Your task to perform on an android device: toggle notifications settings in the gmail app Image 0: 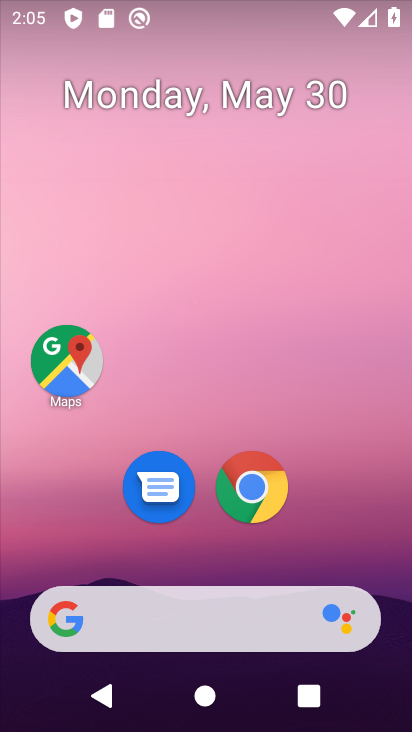
Step 0: drag from (195, 537) to (228, 47)
Your task to perform on an android device: toggle notifications settings in the gmail app Image 1: 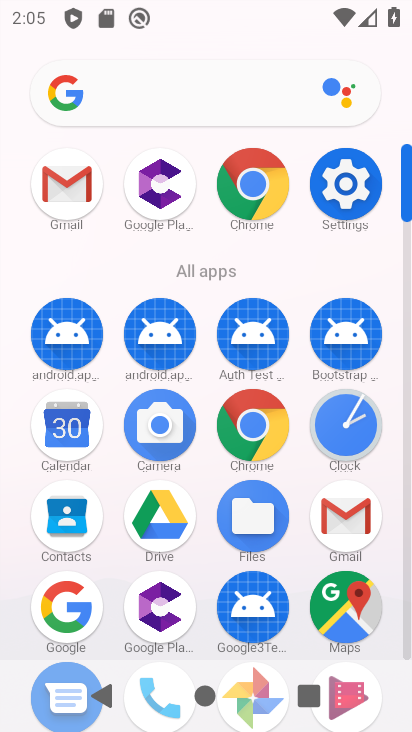
Step 1: click (78, 194)
Your task to perform on an android device: toggle notifications settings in the gmail app Image 2: 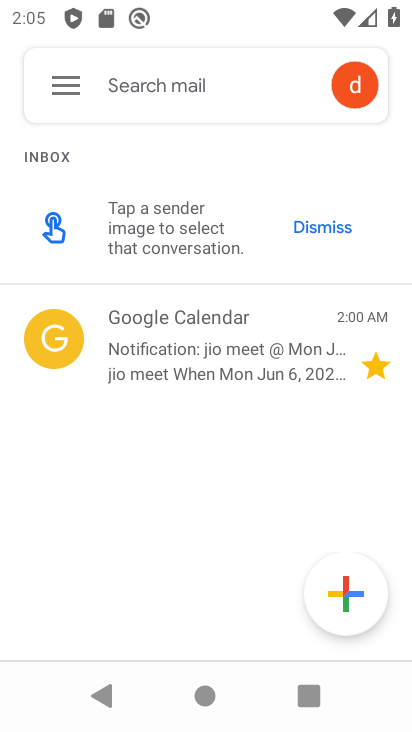
Step 2: click (73, 84)
Your task to perform on an android device: toggle notifications settings in the gmail app Image 3: 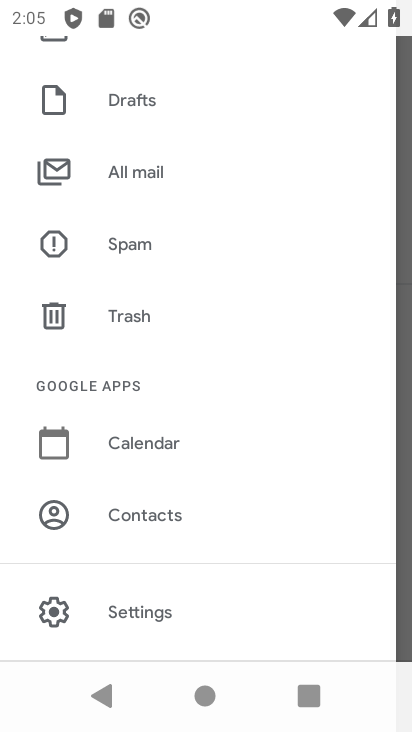
Step 3: drag from (199, 347) to (191, 467)
Your task to perform on an android device: toggle notifications settings in the gmail app Image 4: 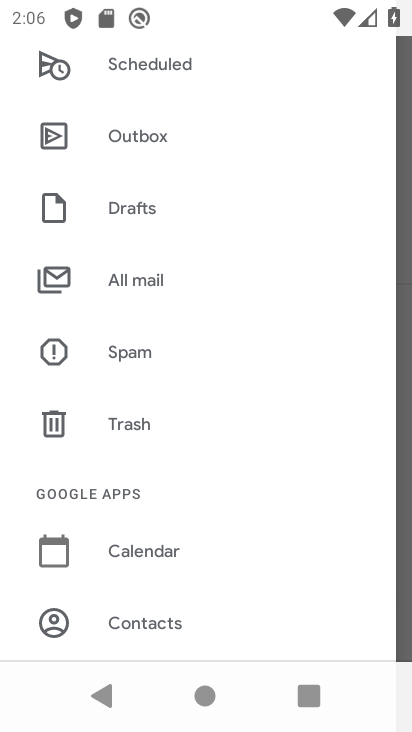
Step 4: drag from (168, 562) to (189, 267)
Your task to perform on an android device: toggle notifications settings in the gmail app Image 5: 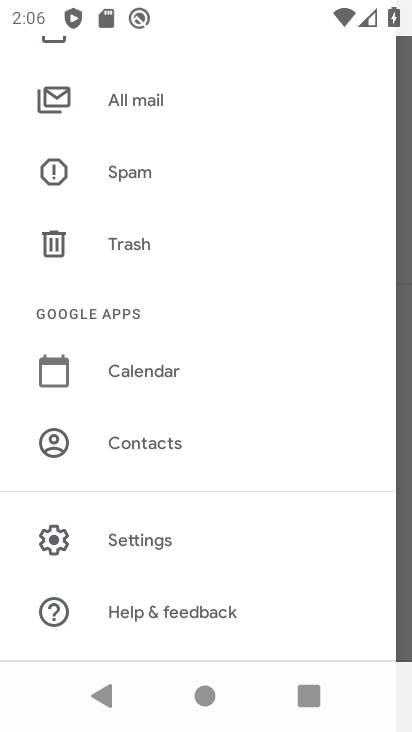
Step 5: click (135, 545)
Your task to perform on an android device: toggle notifications settings in the gmail app Image 6: 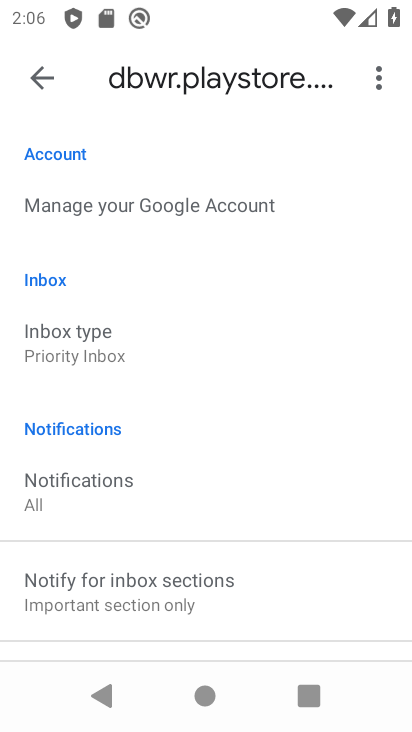
Step 6: click (96, 488)
Your task to perform on an android device: toggle notifications settings in the gmail app Image 7: 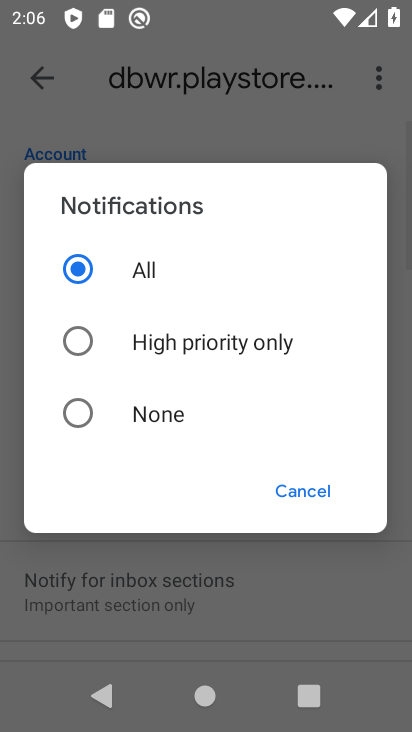
Step 7: click (89, 424)
Your task to perform on an android device: toggle notifications settings in the gmail app Image 8: 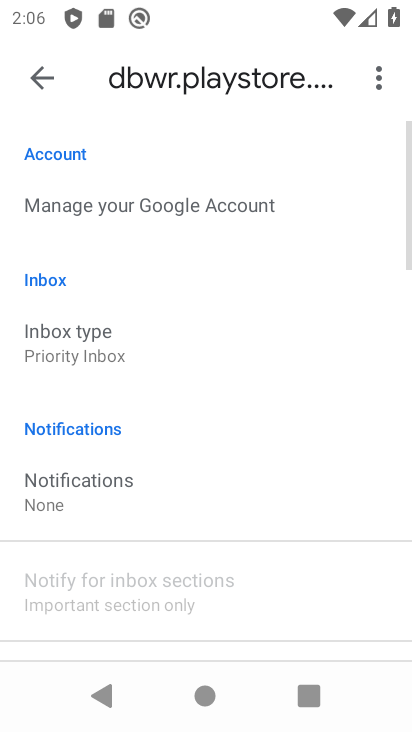
Step 8: task complete